Your task to perform on an android device: open the mobile data screen to see how much data has been used Image 0: 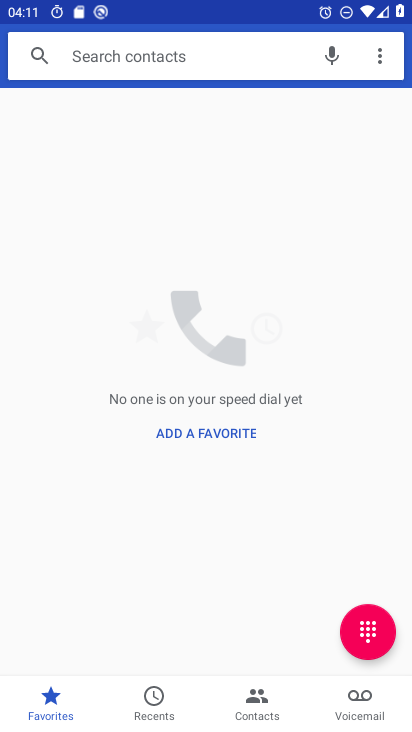
Step 0: press home button
Your task to perform on an android device: open the mobile data screen to see how much data has been used Image 1: 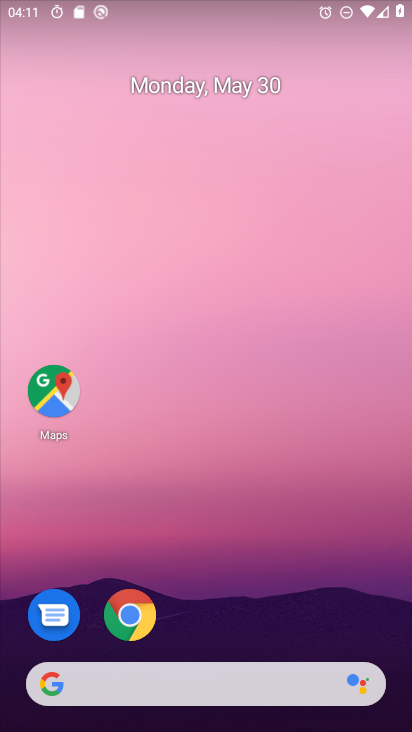
Step 1: drag from (277, 612) to (195, 133)
Your task to perform on an android device: open the mobile data screen to see how much data has been used Image 2: 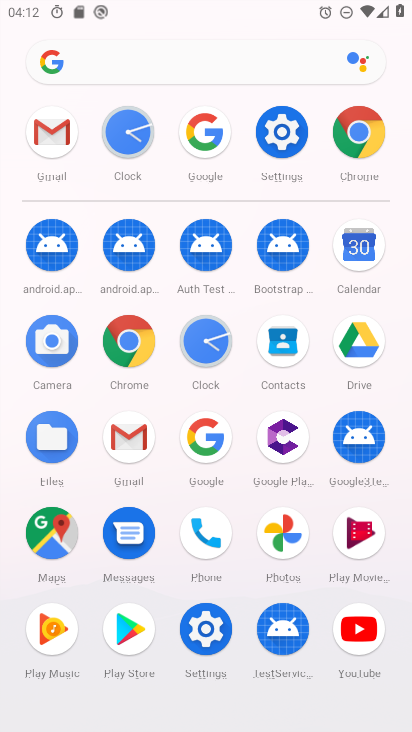
Step 2: click (283, 132)
Your task to perform on an android device: open the mobile data screen to see how much data has been used Image 3: 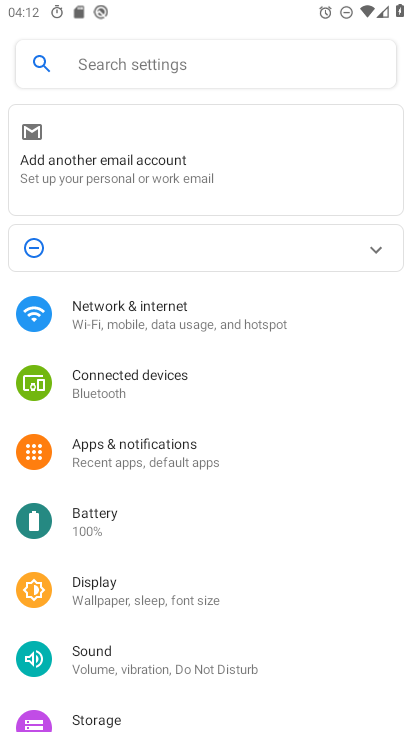
Step 3: click (148, 323)
Your task to perform on an android device: open the mobile data screen to see how much data has been used Image 4: 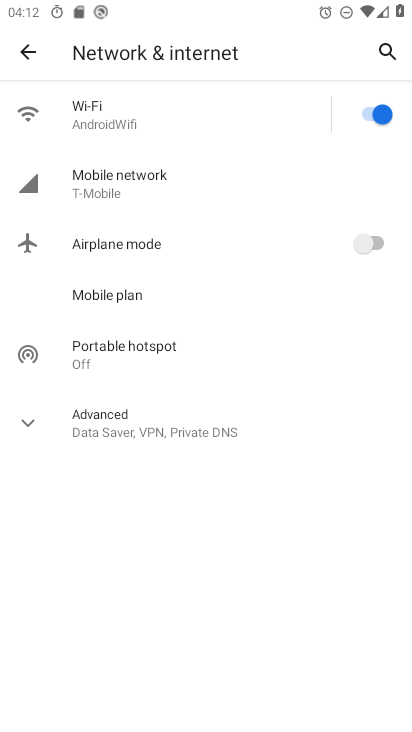
Step 4: click (111, 183)
Your task to perform on an android device: open the mobile data screen to see how much data has been used Image 5: 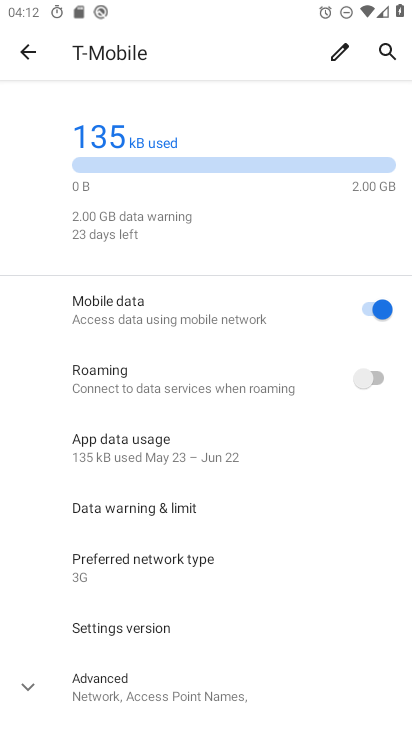
Step 5: task complete